Your task to perform on an android device: turn on wifi Image 0: 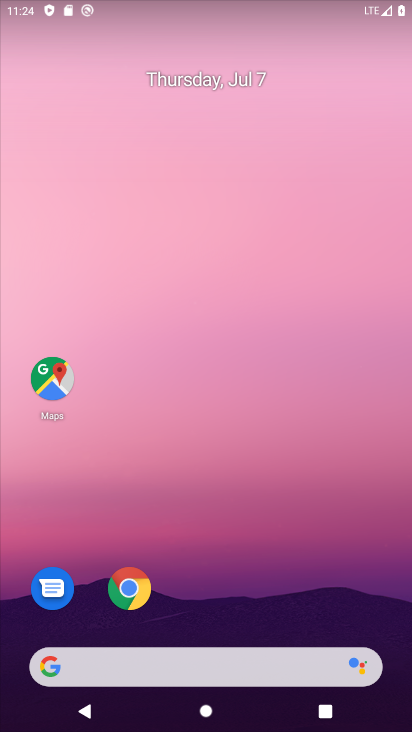
Step 0: drag from (286, 556) to (293, 227)
Your task to perform on an android device: turn on wifi Image 1: 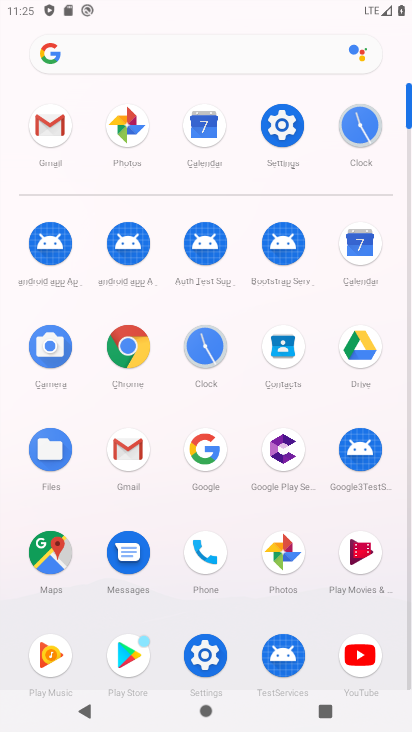
Step 1: click (282, 122)
Your task to perform on an android device: turn on wifi Image 2: 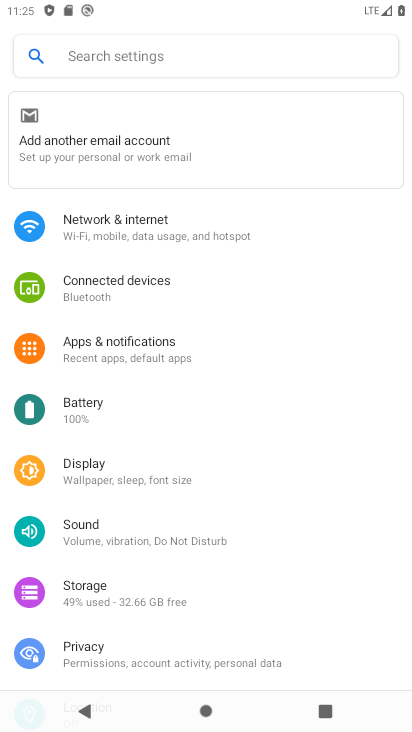
Step 2: click (179, 223)
Your task to perform on an android device: turn on wifi Image 3: 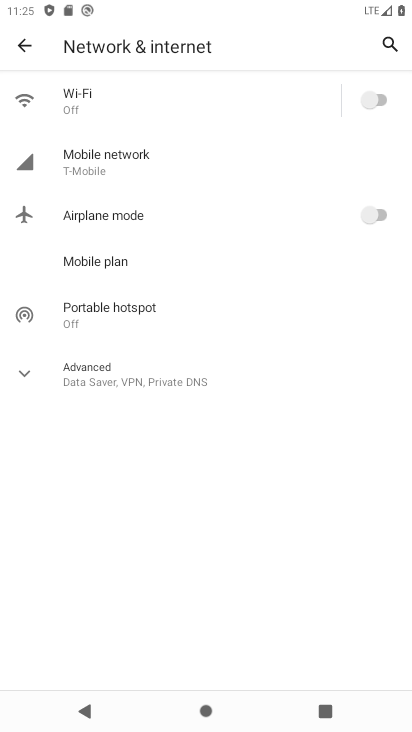
Step 3: click (387, 105)
Your task to perform on an android device: turn on wifi Image 4: 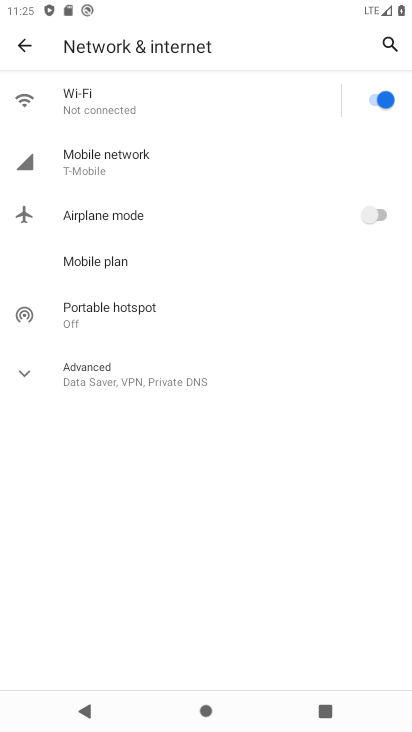
Step 4: task complete